Your task to perform on an android device: Open Google Chrome and open the bookmarks view Image 0: 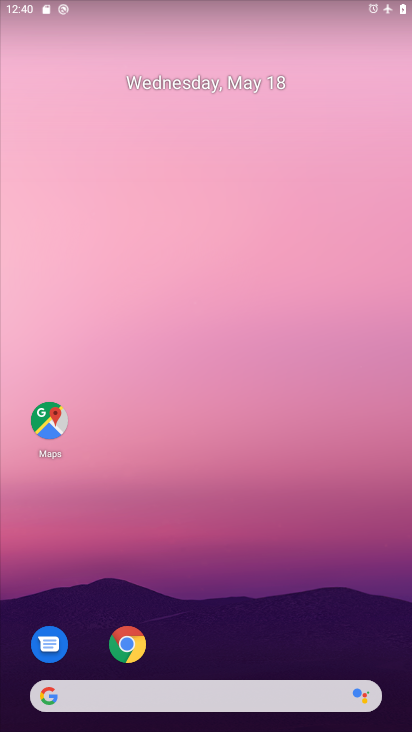
Step 0: click (44, 420)
Your task to perform on an android device: Open Google Chrome and open the bookmarks view Image 1: 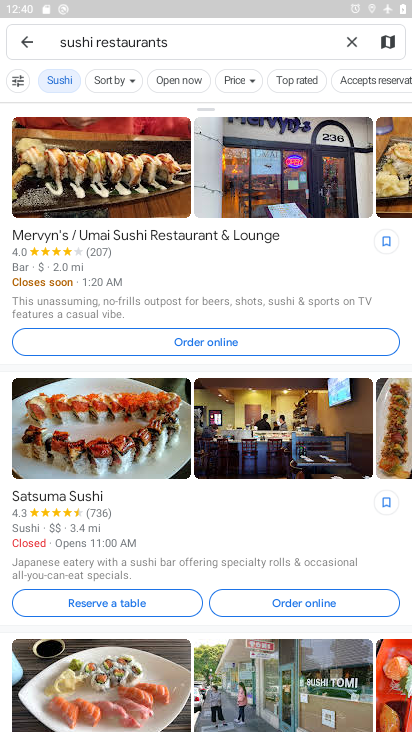
Step 1: press home button
Your task to perform on an android device: Open Google Chrome and open the bookmarks view Image 2: 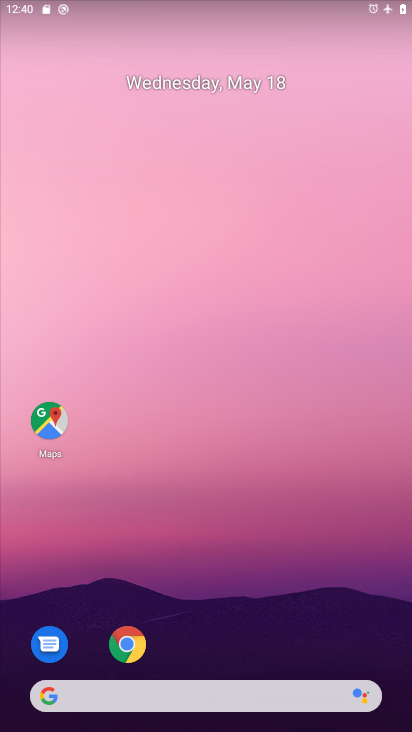
Step 2: click (133, 639)
Your task to perform on an android device: Open Google Chrome and open the bookmarks view Image 3: 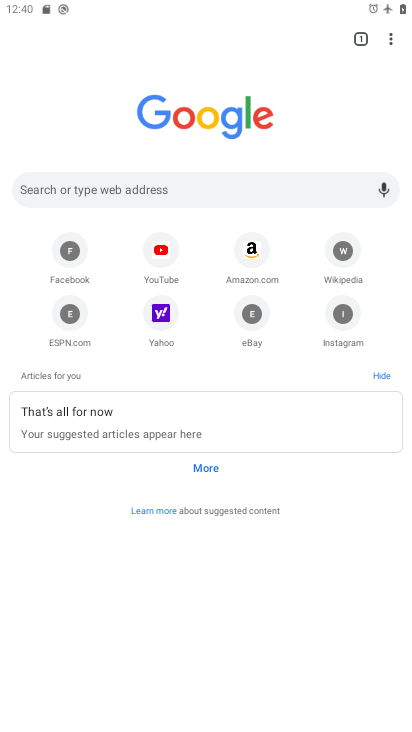
Step 3: click (390, 38)
Your task to perform on an android device: Open Google Chrome and open the bookmarks view Image 4: 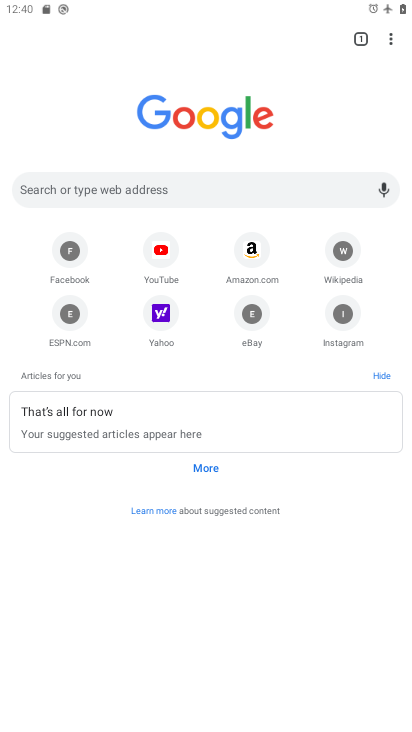
Step 4: click (390, 38)
Your task to perform on an android device: Open Google Chrome and open the bookmarks view Image 5: 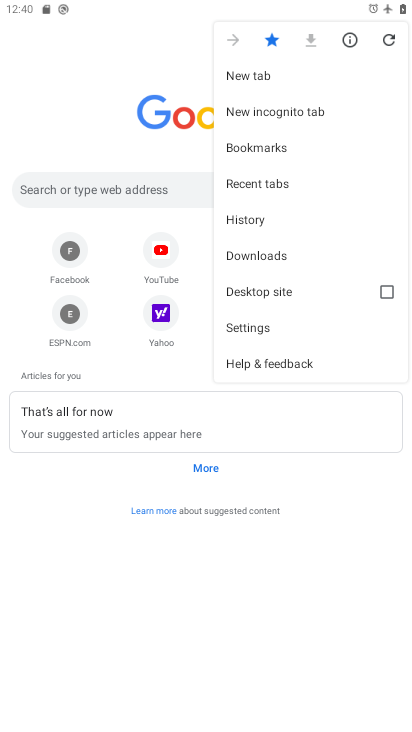
Step 5: click (270, 327)
Your task to perform on an android device: Open Google Chrome and open the bookmarks view Image 6: 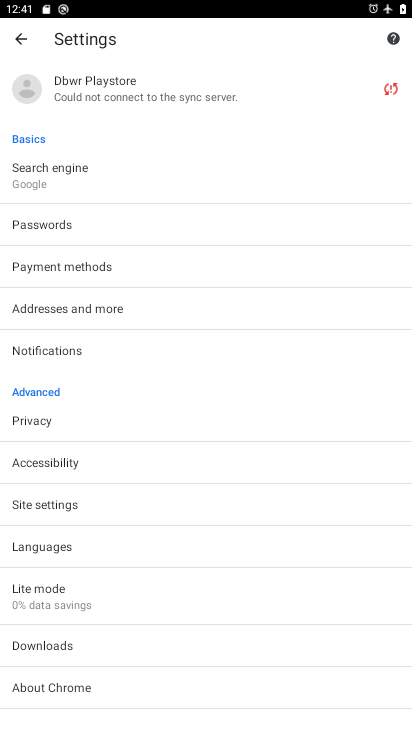
Step 6: click (18, 34)
Your task to perform on an android device: Open Google Chrome and open the bookmarks view Image 7: 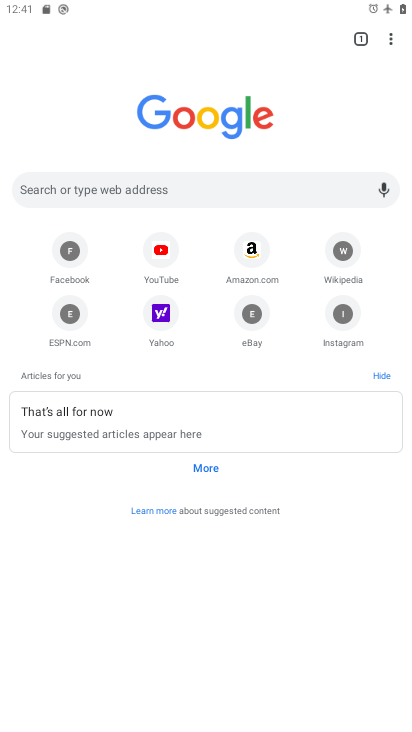
Step 7: click (391, 40)
Your task to perform on an android device: Open Google Chrome and open the bookmarks view Image 8: 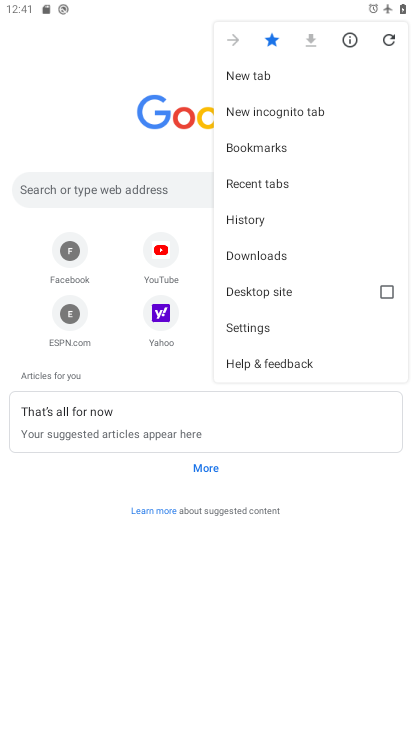
Step 8: click (295, 146)
Your task to perform on an android device: Open Google Chrome and open the bookmarks view Image 9: 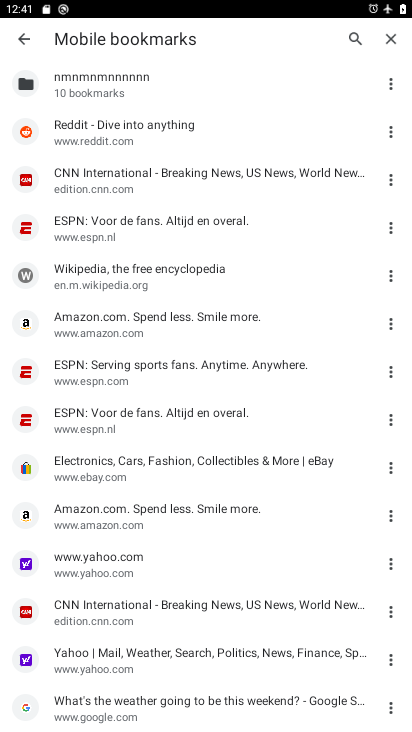
Step 9: task complete